Your task to perform on an android device: Is it going to rain tomorrow? Image 0: 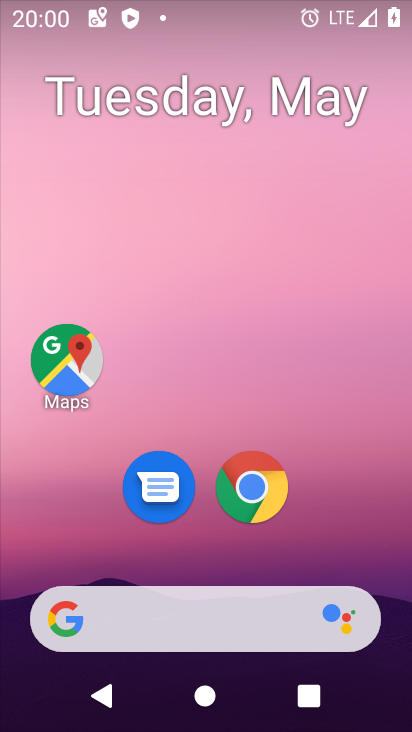
Step 0: click (224, 616)
Your task to perform on an android device: Is it going to rain tomorrow? Image 1: 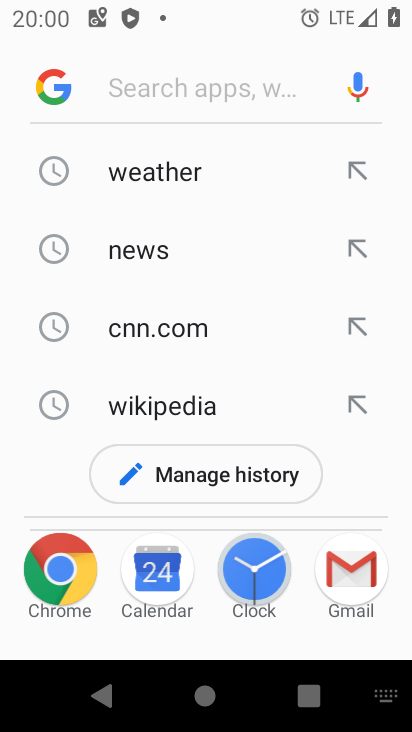
Step 1: click (165, 183)
Your task to perform on an android device: Is it going to rain tomorrow? Image 2: 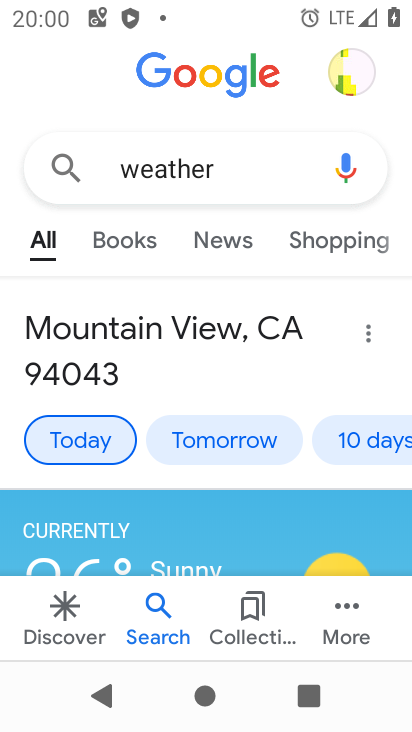
Step 2: click (224, 445)
Your task to perform on an android device: Is it going to rain tomorrow? Image 3: 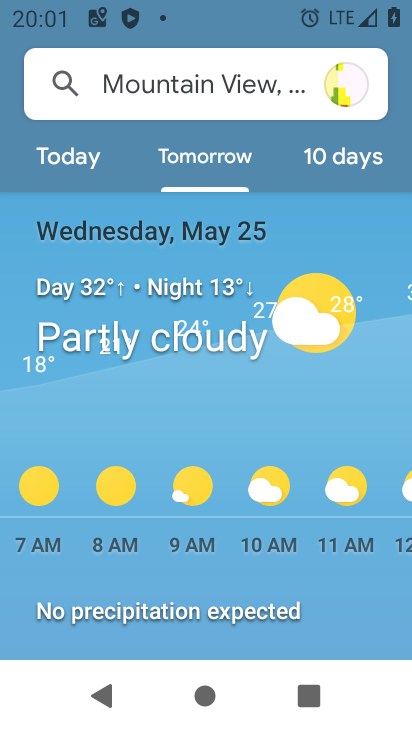
Step 3: task complete